Your task to perform on an android device: Open calendar and show me the fourth week of next month Image 0: 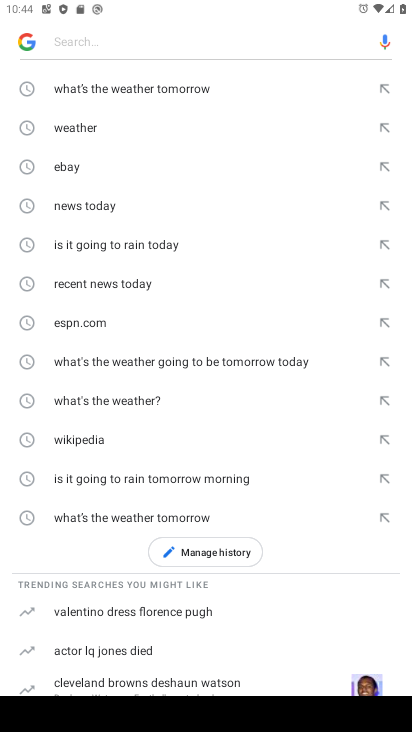
Step 0: press home button
Your task to perform on an android device: Open calendar and show me the fourth week of next month Image 1: 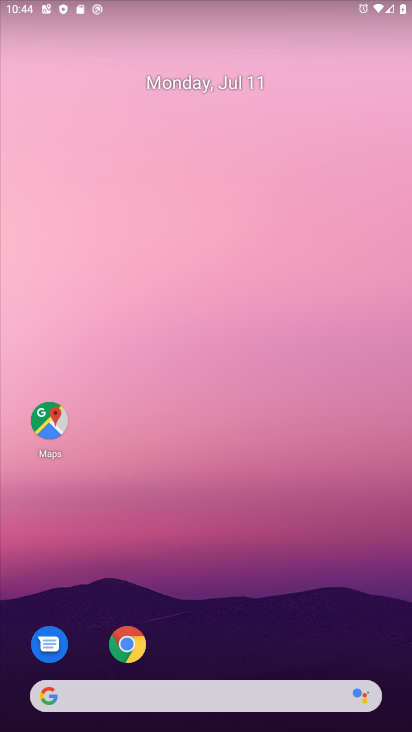
Step 1: drag from (221, 666) to (216, 130)
Your task to perform on an android device: Open calendar and show me the fourth week of next month Image 2: 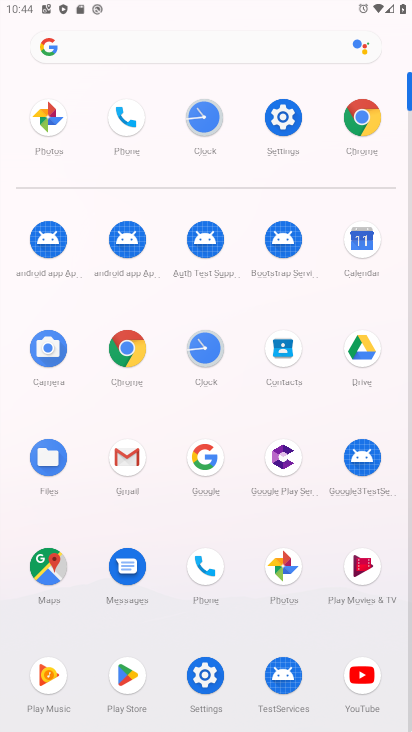
Step 2: click (356, 237)
Your task to perform on an android device: Open calendar and show me the fourth week of next month Image 3: 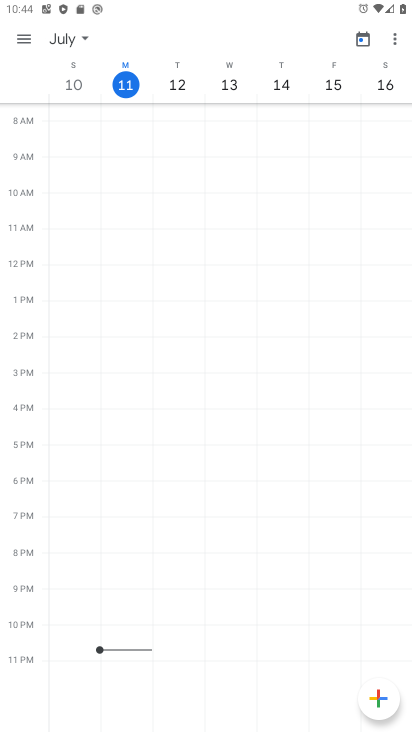
Step 3: drag from (383, 80) to (74, 90)
Your task to perform on an android device: Open calendar and show me the fourth week of next month Image 4: 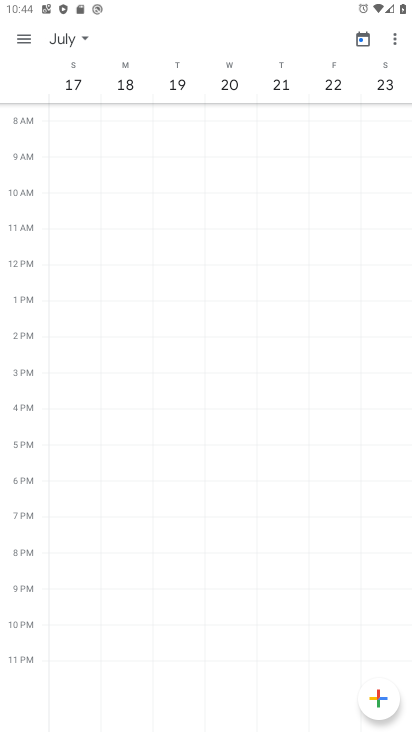
Step 4: click (85, 35)
Your task to perform on an android device: Open calendar and show me the fourth week of next month Image 5: 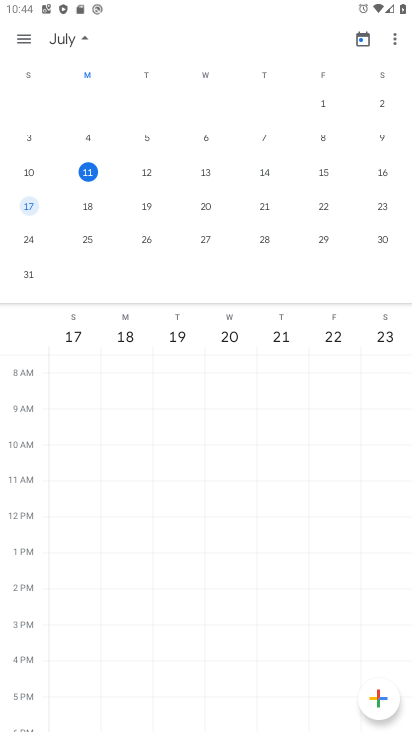
Step 5: drag from (372, 193) to (3, 251)
Your task to perform on an android device: Open calendar and show me the fourth week of next month Image 6: 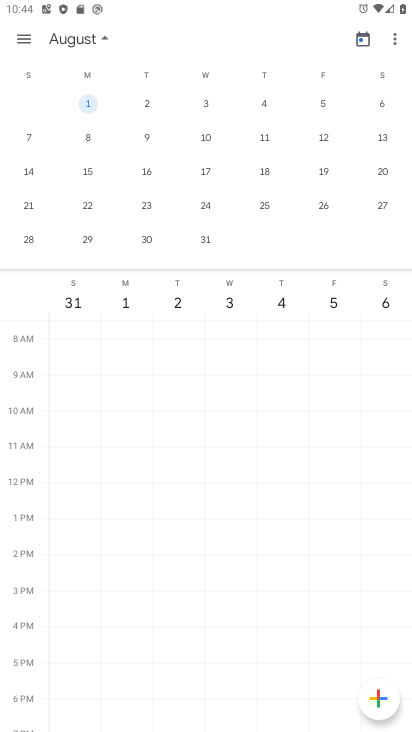
Step 6: click (28, 205)
Your task to perform on an android device: Open calendar and show me the fourth week of next month Image 7: 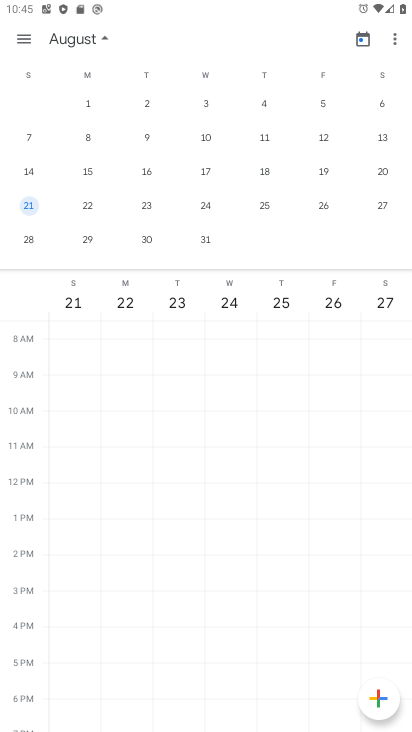
Step 7: task complete